Your task to perform on an android device: Go to location settings Image 0: 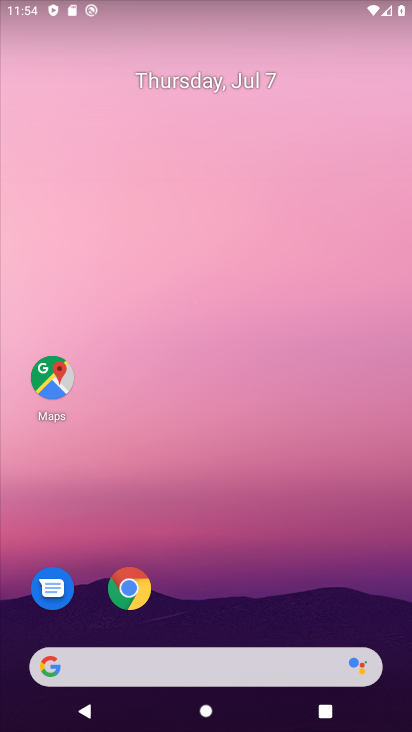
Step 0: drag from (211, 632) to (202, 29)
Your task to perform on an android device: Go to location settings Image 1: 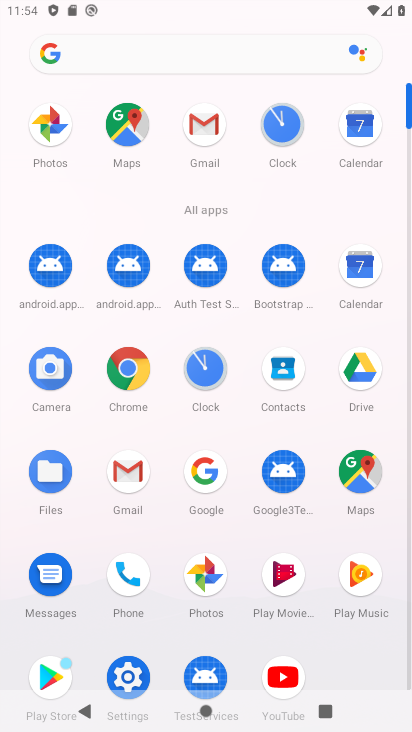
Step 1: click (124, 667)
Your task to perform on an android device: Go to location settings Image 2: 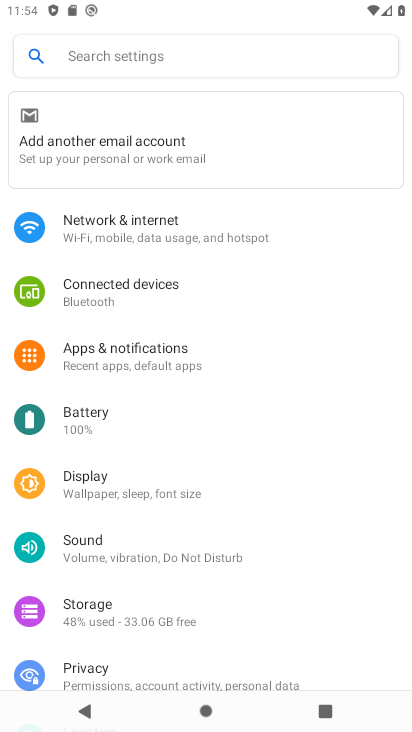
Step 2: drag from (142, 665) to (178, 280)
Your task to perform on an android device: Go to location settings Image 3: 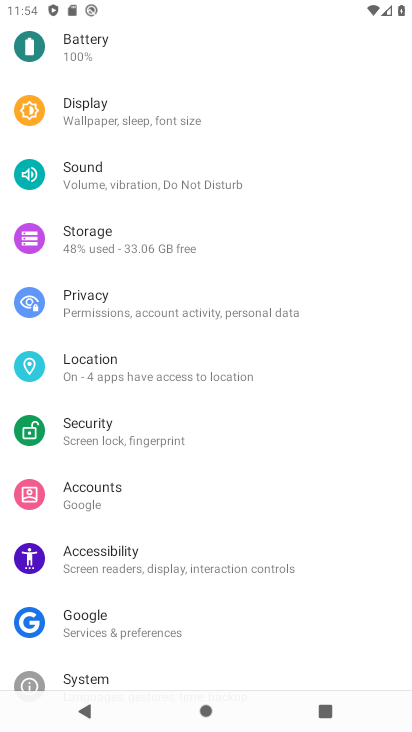
Step 3: click (149, 358)
Your task to perform on an android device: Go to location settings Image 4: 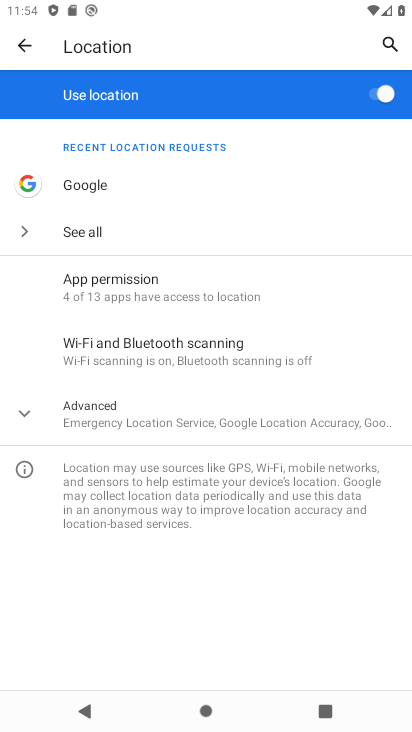
Step 4: click (24, 409)
Your task to perform on an android device: Go to location settings Image 5: 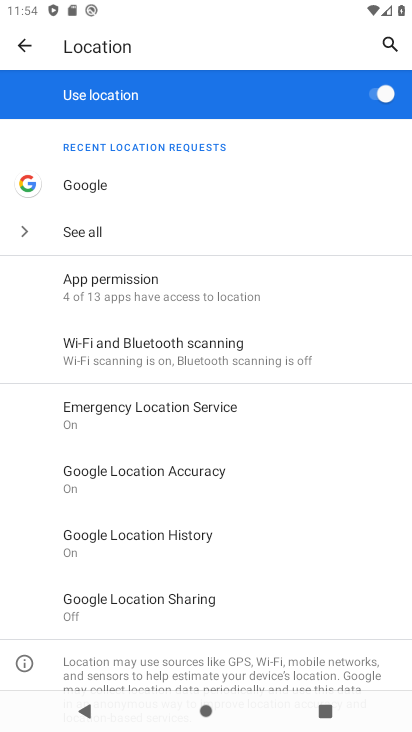
Step 5: task complete